Your task to perform on an android device: toggle notification dots Image 0: 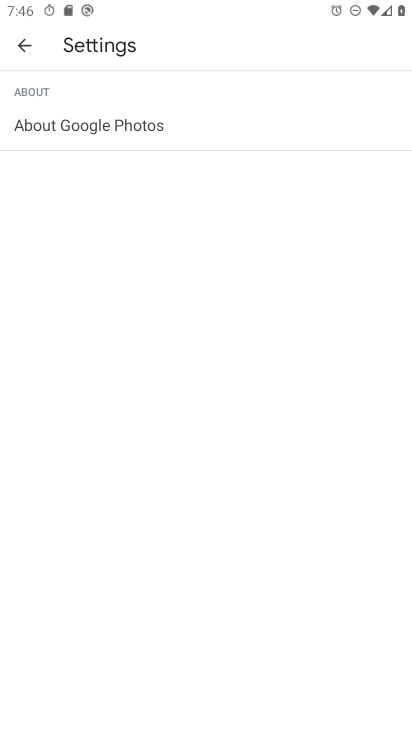
Step 0: press home button
Your task to perform on an android device: toggle notification dots Image 1: 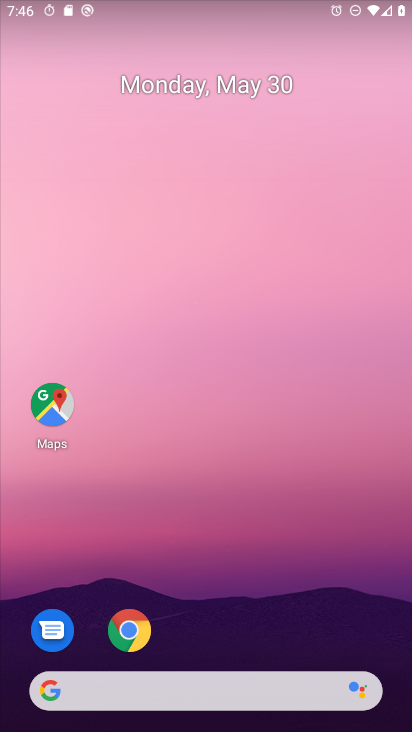
Step 1: drag from (311, 625) to (212, 78)
Your task to perform on an android device: toggle notification dots Image 2: 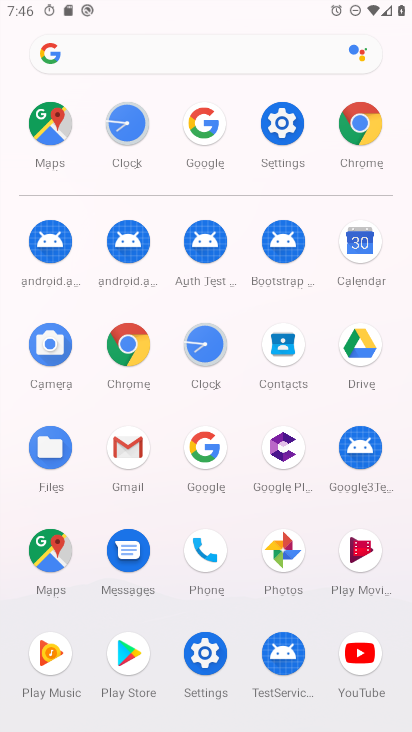
Step 2: click (275, 133)
Your task to perform on an android device: toggle notification dots Image 3: 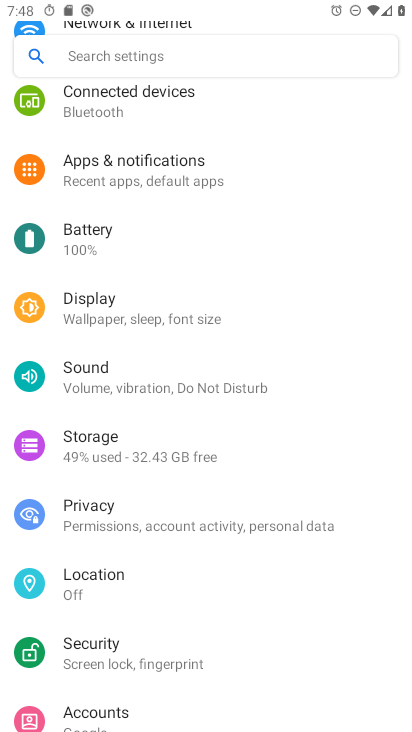
Step 3: click (161, 183)
Your task to perform on an android device: toggle notification dots Image 4: 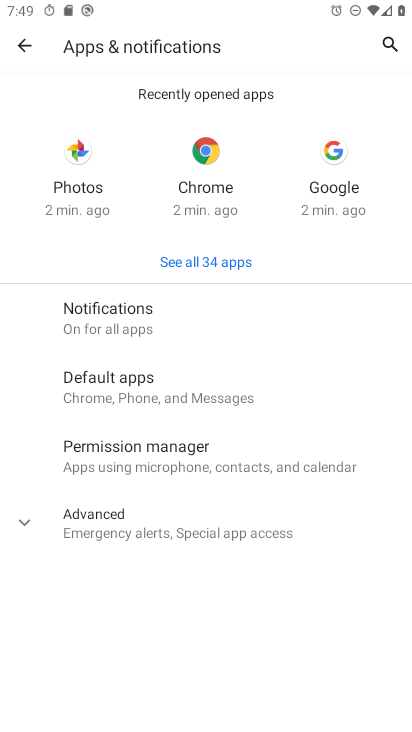
Step 4: click (152, 326)
Your task to perform on an android device: toggle notification dots Image 5: 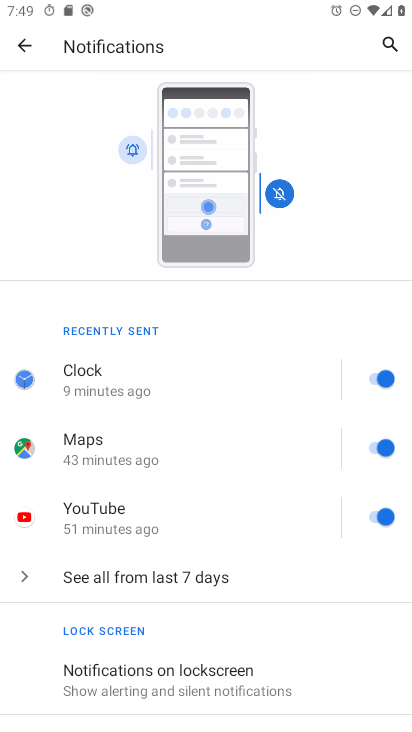
Step 5: drag from (213, 686) to (206, 174)
Your task to perform on an android device: toggle notification dots Image 6: 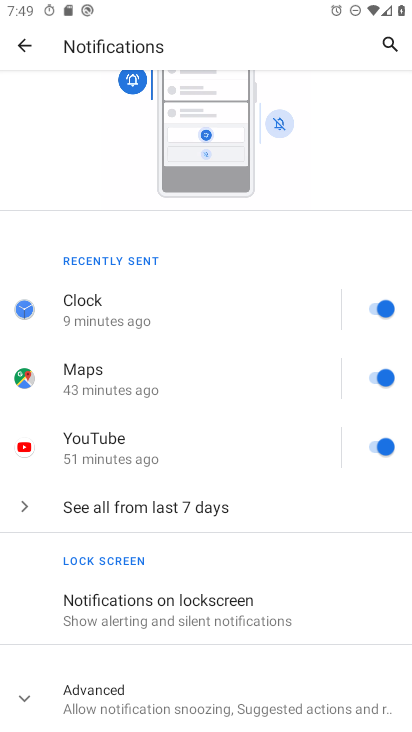
Step 6: click (156, 682)
Your task to perform on an android device: toggle notification dots Image 7: 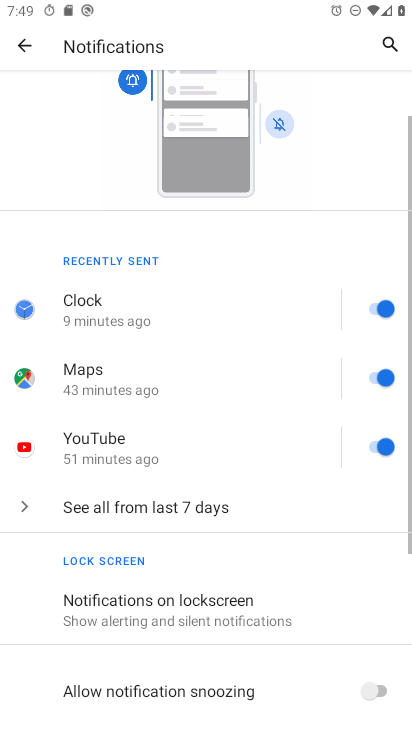
Step 7: drag from (185, 698) to (224, 294)
Your task to perform on an android device: toggle notification dots Image 8: 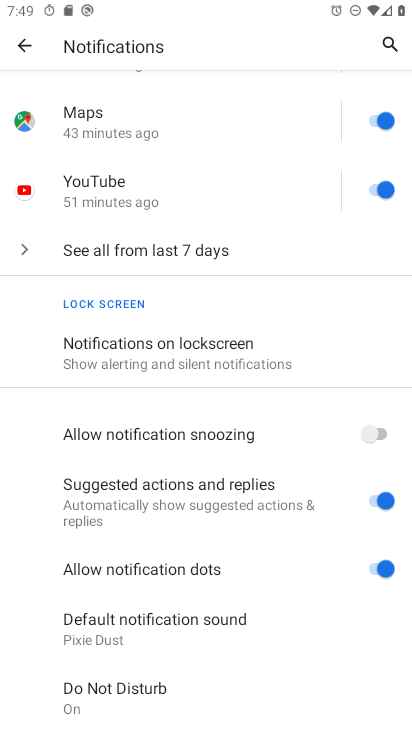
Step 8: click (257, 573)
Your task to perform on an android device: toggle notification dots Image 9: 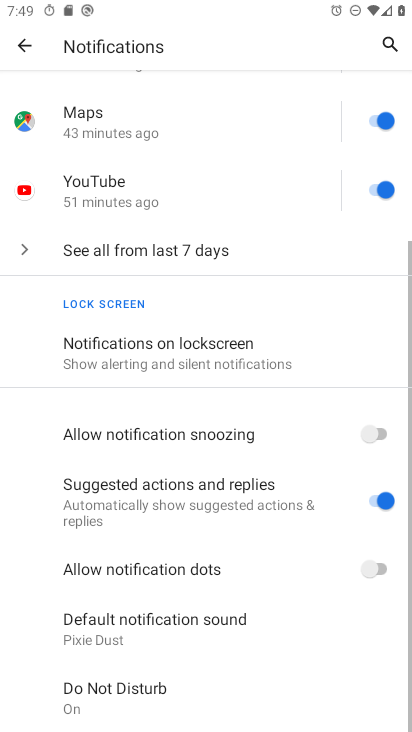
Step 9: task complete